Your task to perform on an android device: check storage Image 0: 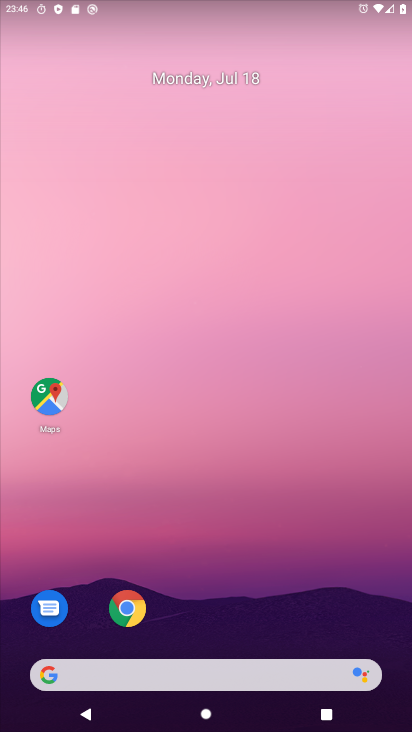
Step 0: drag from (175, 680) to (252, 67)
Your task to perform on an android device: check storage Image 1: 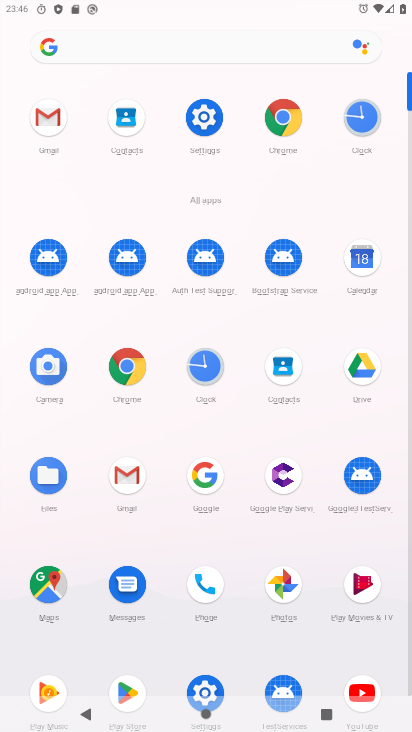
Step 1: click (203, 116)
Your task to perform on an android device: check storage Image 2: 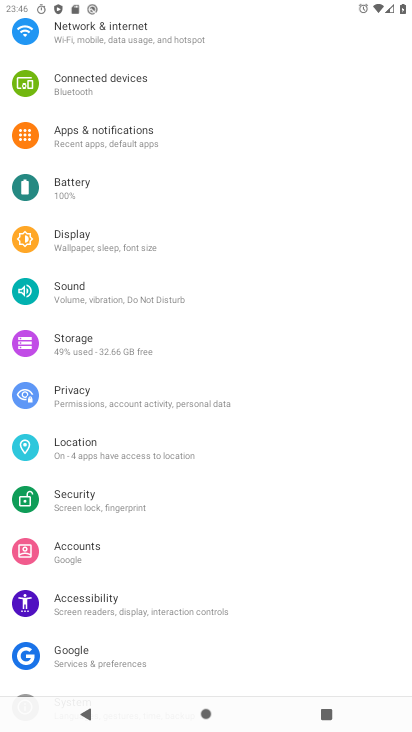
Step 2: click (78, 346)
Your task to perform on an android device: check storage Image 3: 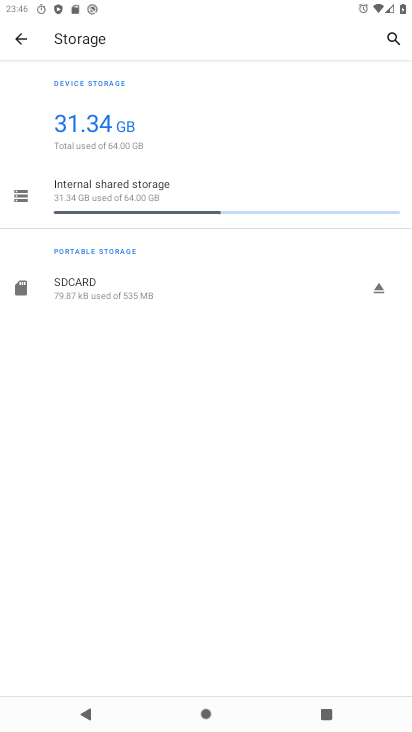
Step 3: task complete